Your task to perform on an android device: add a label to a message in the gmail app Image 0: 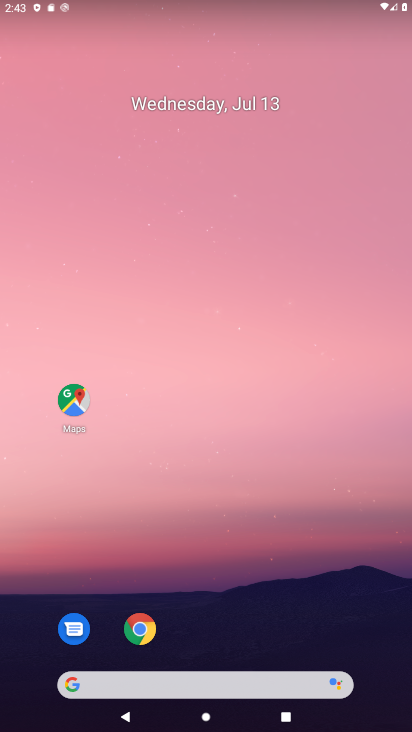
Step 0: drag from (321, 607) to (342, 249)
Your task to perform on an android device: add a label to a message in the gmail app Image 1: 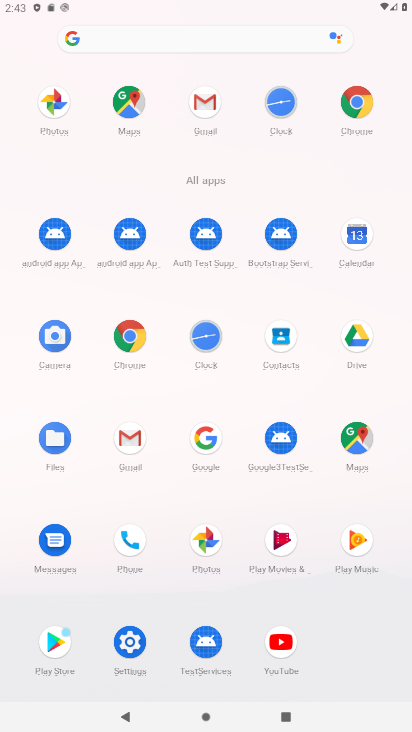
Step 1: click (188, 89)
Your task to perform on an android device: add a label to a message in the gmail app Image 2: 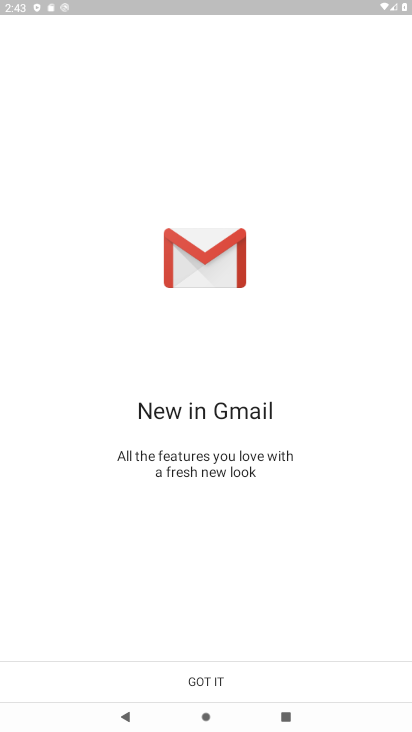
Step 2: click (263, 665)
Your task to perform on an android device: add a label to a message in the gmail app Image 3: 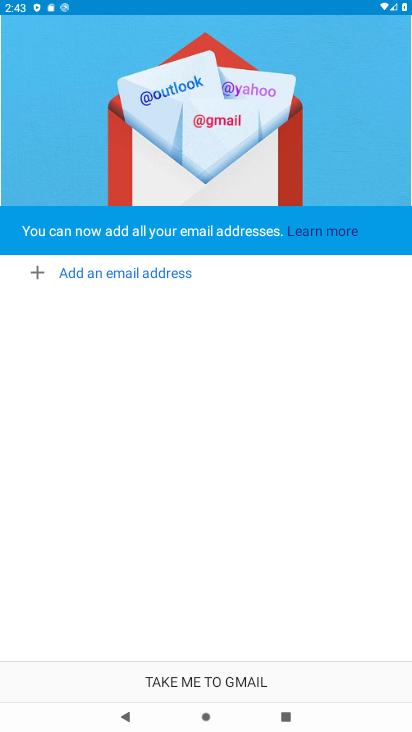
Step 3: click (263, 665)
Your task to perform on an android device: add a label to a message in the gmail app Image 4: 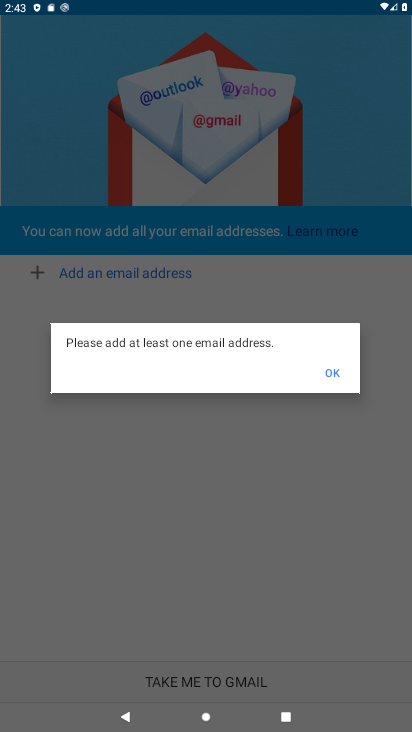
Step 4: click (346, 359)
Your task to perform on an android device: add a label to a message in the gmail app Image 5: 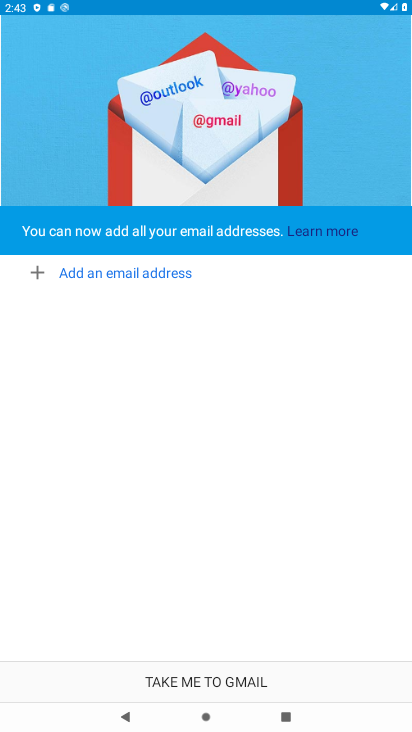
Step 5: task complete